Your task to perform on an android device: toggle notification dots Image 0: 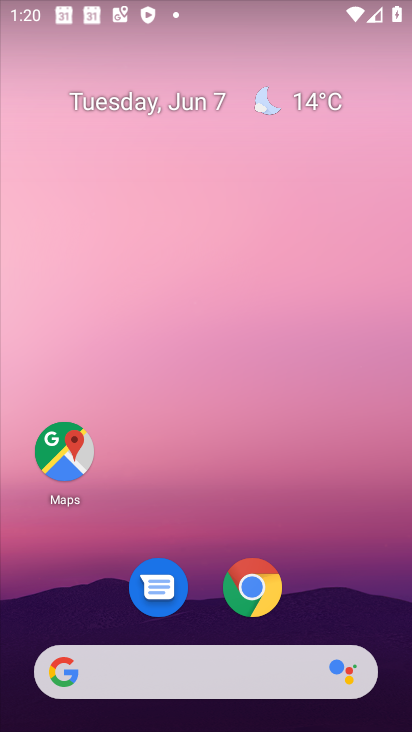
Step 0: drag from (244, 651) to (197, 109)
Your task to perform on an android device: toggle notification dots Image 1: 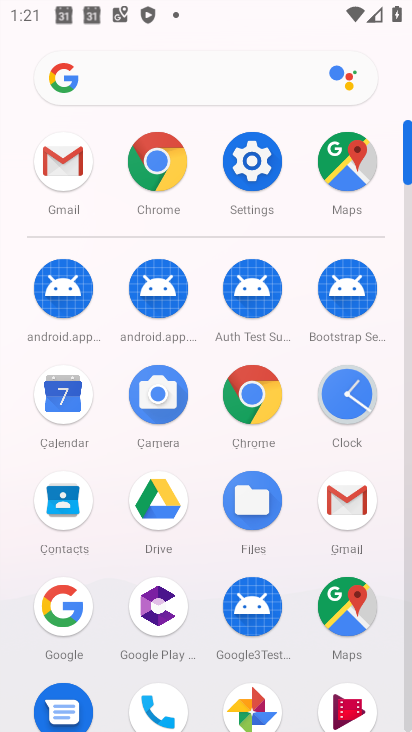
Step 1: click (258, 159)
Your task to perform on an android device: toggle notification dots Image 2: 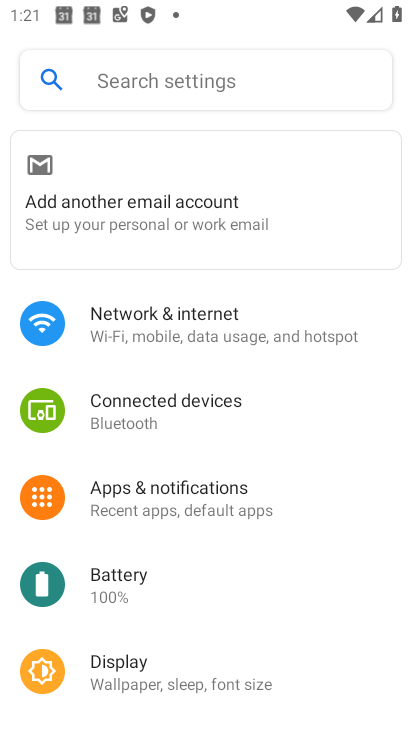
Step 2: click (201, 516)
Your task to perform on an android device: toggle notification dots Image 3: 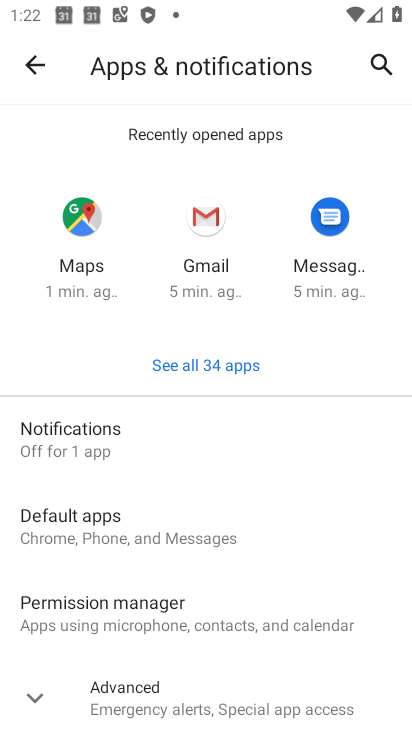
Step 3: click (159, 456)
Your task to perform on an android device: toggle notification dots Image 4: 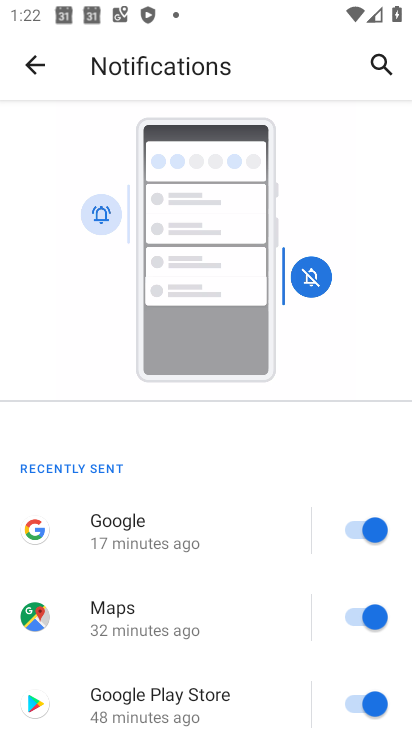
Step 4: drag from (187, 615) to (238, 169)
Your task to perform on an android device: toggle notification dots Image 5: 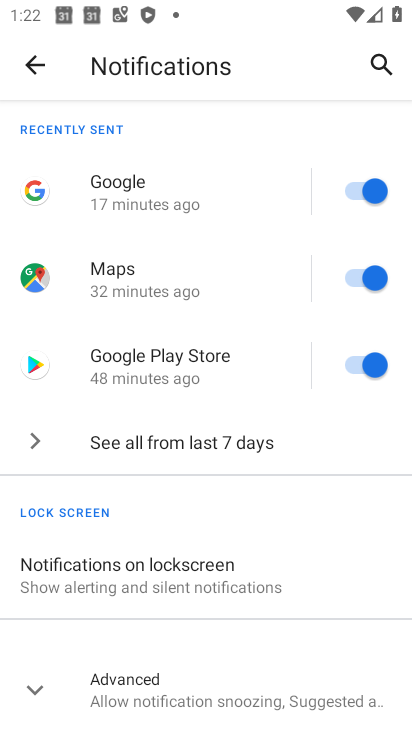
Step 5: drag from (209, 587) to (204, 333)
Your task to perform on an android device: toggle notification dots Image 6: 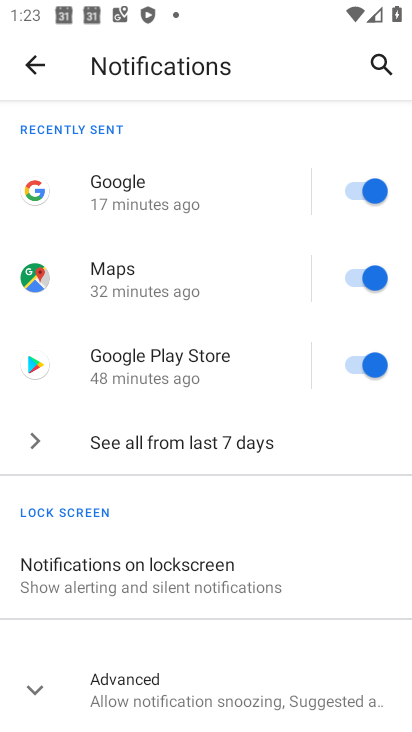
Step 6: click (190, 678)
Your task to perform on an android device: toggle notification dots Image 7: 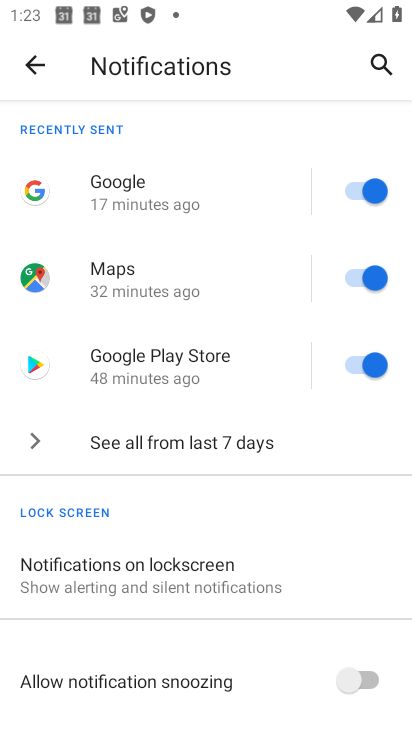
Step 7: drag from (189, 647) to (177, 383)
Your task to perform on an android device: toggle notification dots Image 8: 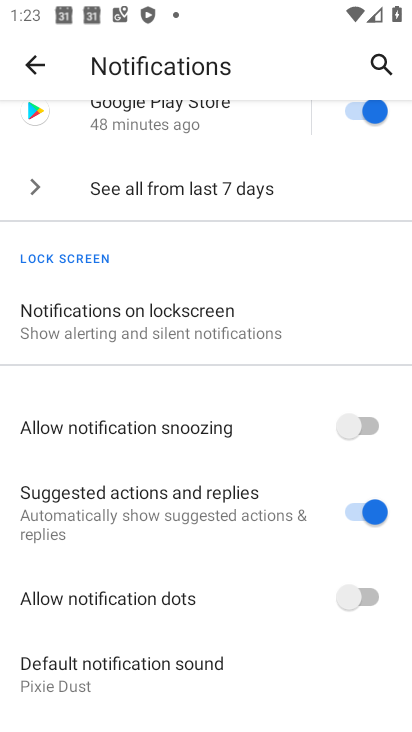
Step 8: click (272, 579)
Your task to perform on an android device: toggle notification dots Image 9: 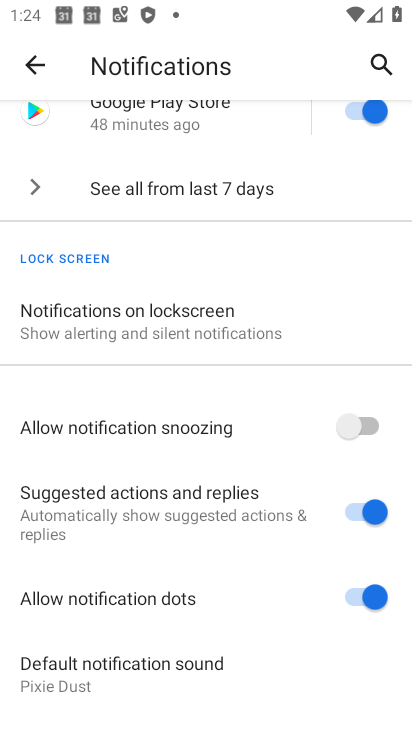
Step 9: task complete